Your task to perform on an android device: refresh tabs in the chrome app Image 0: 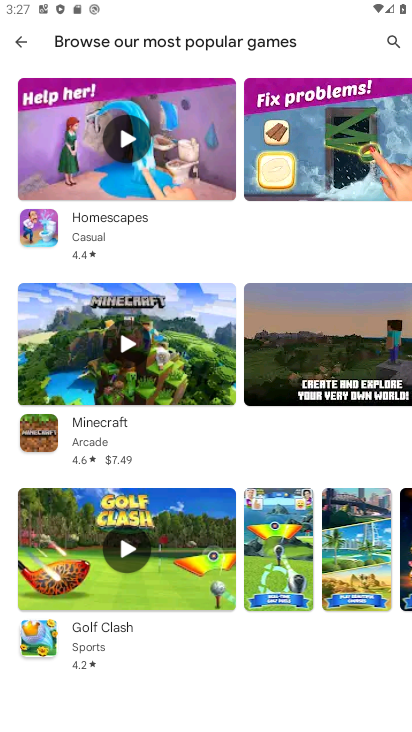
Step 0: press home button
Your task to perform on an android device: refresh tabs in the chrome app Image 1: 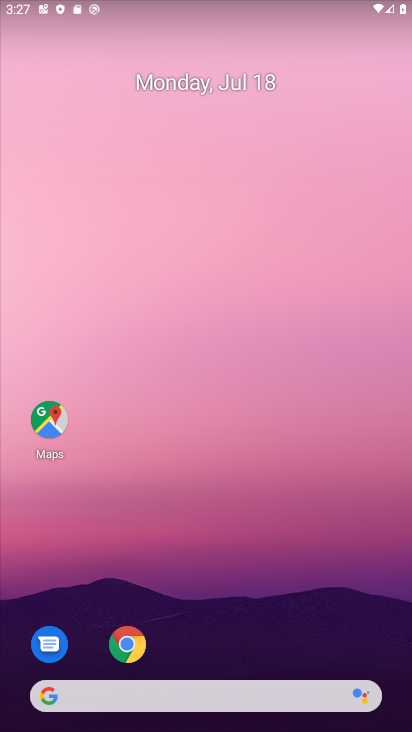
Step 1: click (125, 646)
Your task to perform on an android device: refresh tabs in the chrome app Image 2: 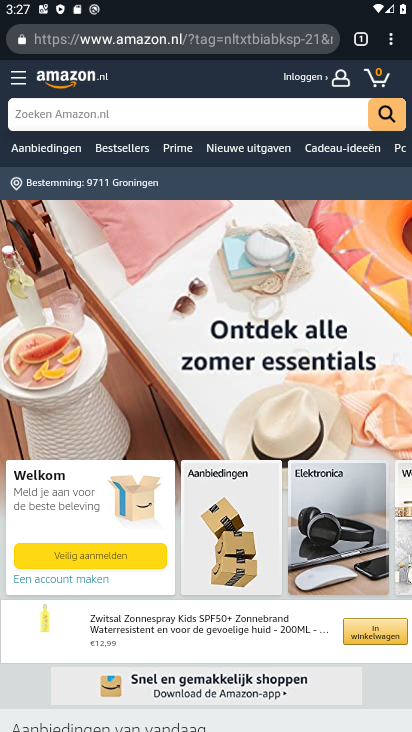
Step 2: click (390, 44)
Your task to perform on an android device: refresh tabs in the chrome app Image 3: 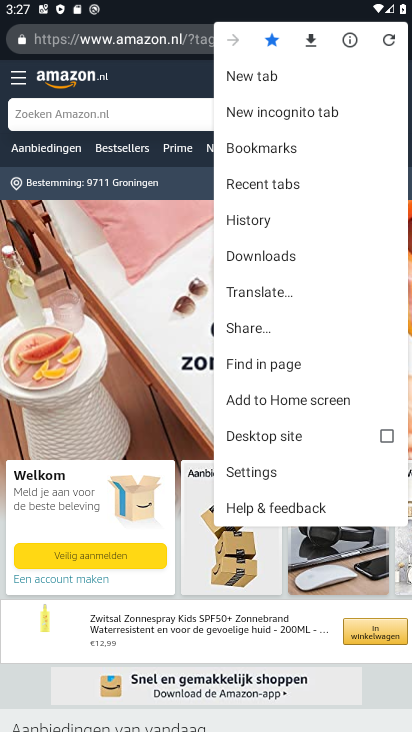
Step 3: click (388, 37)
Your task to perform on an android device: refresh tabs in the chrome app Image 4: 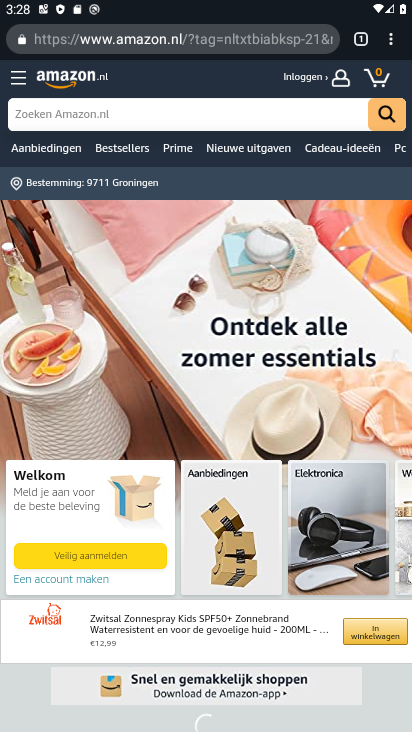
Step 4: task complete